Your task to perform on an android device: Open the Play Movies app and select the watchlist tab. Image 0: 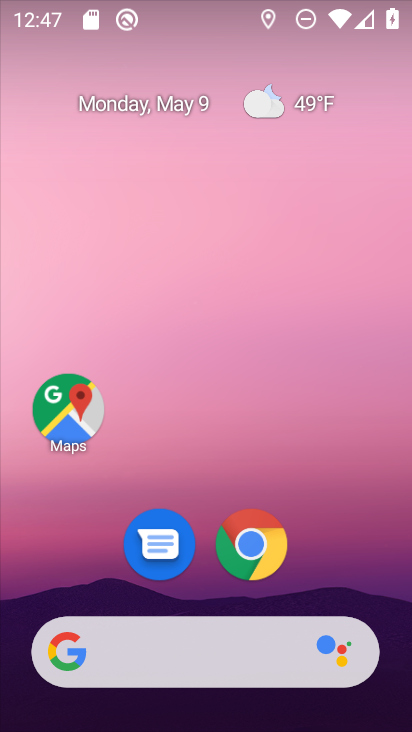
Step 0: drag from (373, 450) to (336, 5)
Your task to perform on an android device: Open the Play Movies app and select the watchlist tab. Image 1: 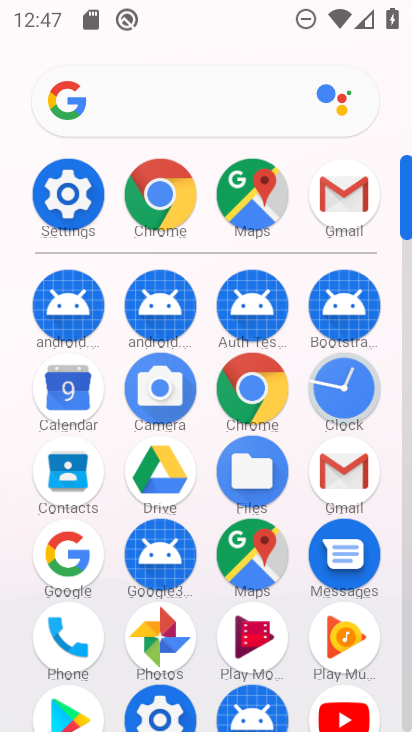
Step 1: drag from (382, 657) to (15, 299)
Your task to perform on an android device: Open the Play Movies app and select the watchlist tab. Image 2: 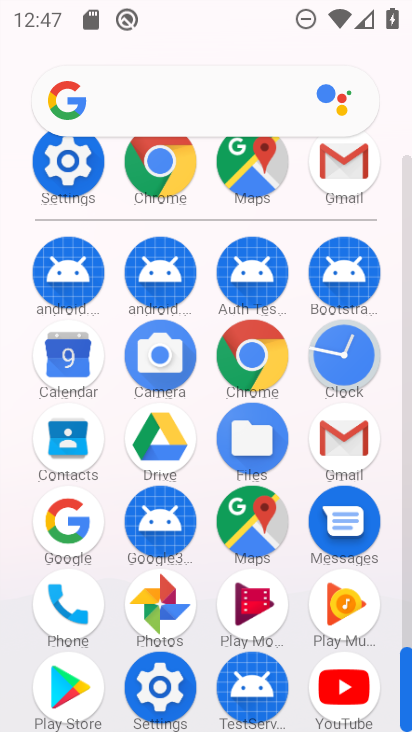
Step 2: drag from (398, 606) to (411, 406)
Your task to perform on an android device: Open the Play Movies app and select the watchlist tab. Image 3: 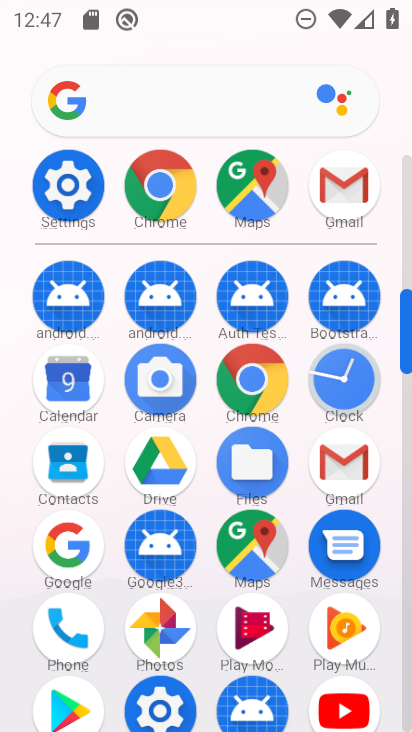
Step 3: click (248, 644)
Your task to perform on an android device: Open the Play Movies app and select the watchlist tab. Image 4: 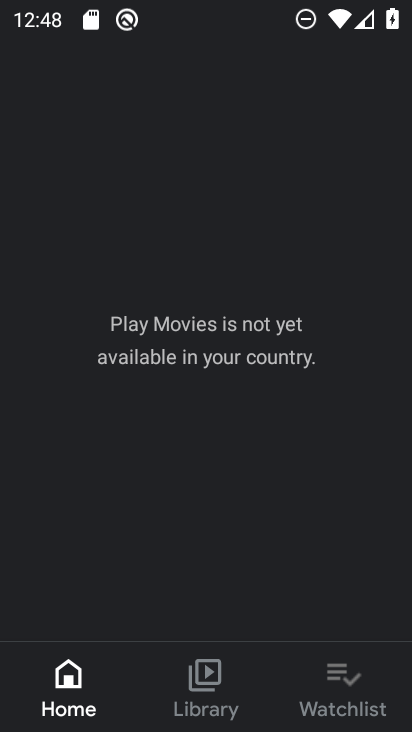
Step 4: click (358, 702)
Your task to perform on an android device: Open the Play Movies app and select the watchlist tab. Image 5: 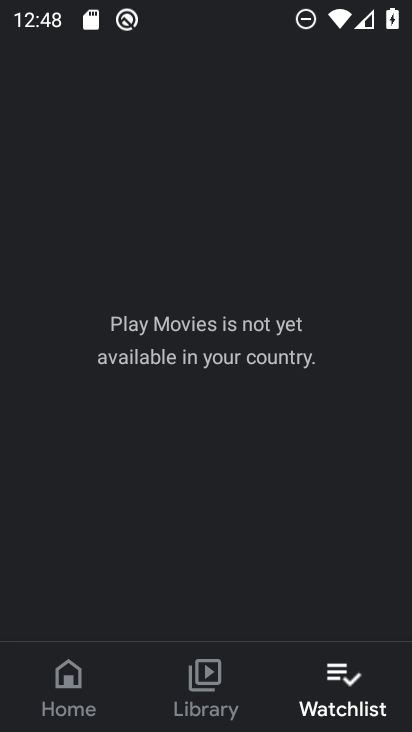
Step 5: task complete